Your task to perform on an android device: Open my contact list Image 0: 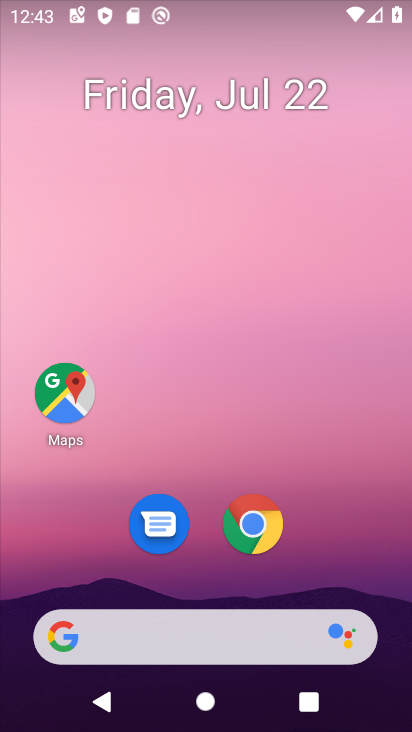
Step 0: drag from (330, 533) to (364, 38)
Your task to perform on an android device: Open my contact list Image 1: 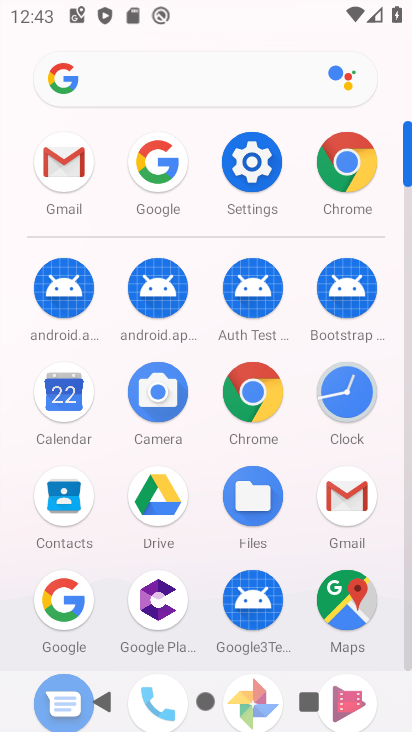
Step 1: click (65, 506)
Your task to perform on an android device: Open my contact list Image 2: 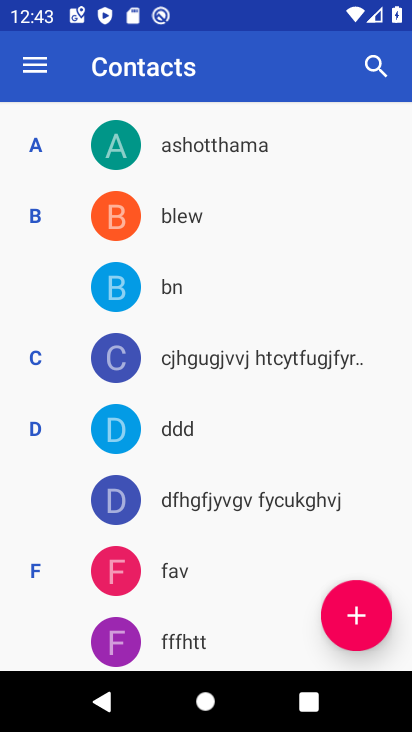
Step 2: task complete